Your task to perform on an android device: toggle improve location accuracy Image 0: 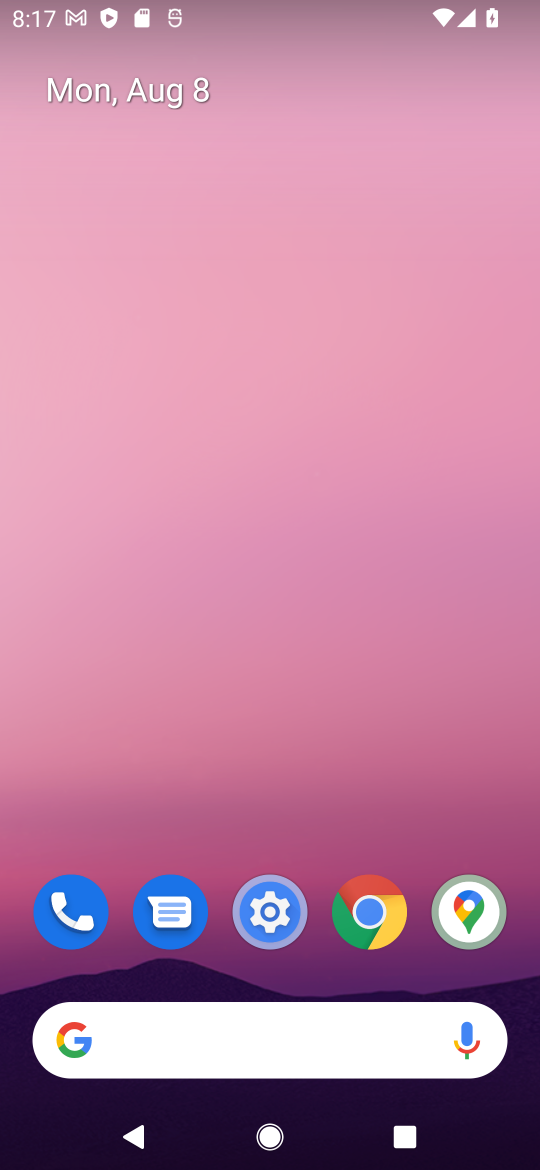
Step 0: drag from (430, 882) to (258, 160)
Your task to perform on an android device: toggle improve location accuracy Image 1: 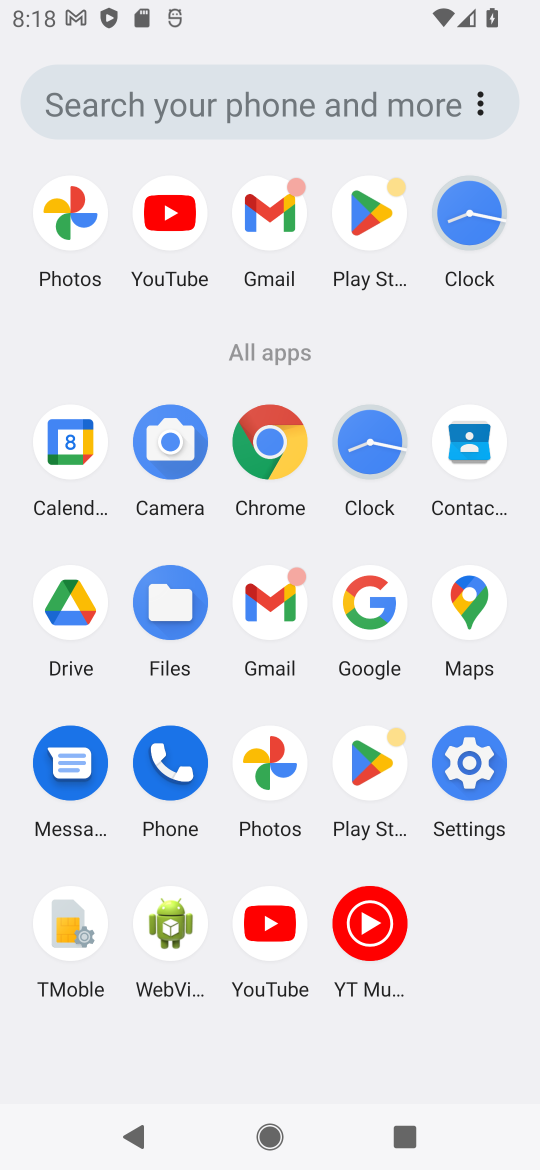
Step 1: click (465, 771)
Your task to perform on an android device: toggle improve location accuracy Image 2: 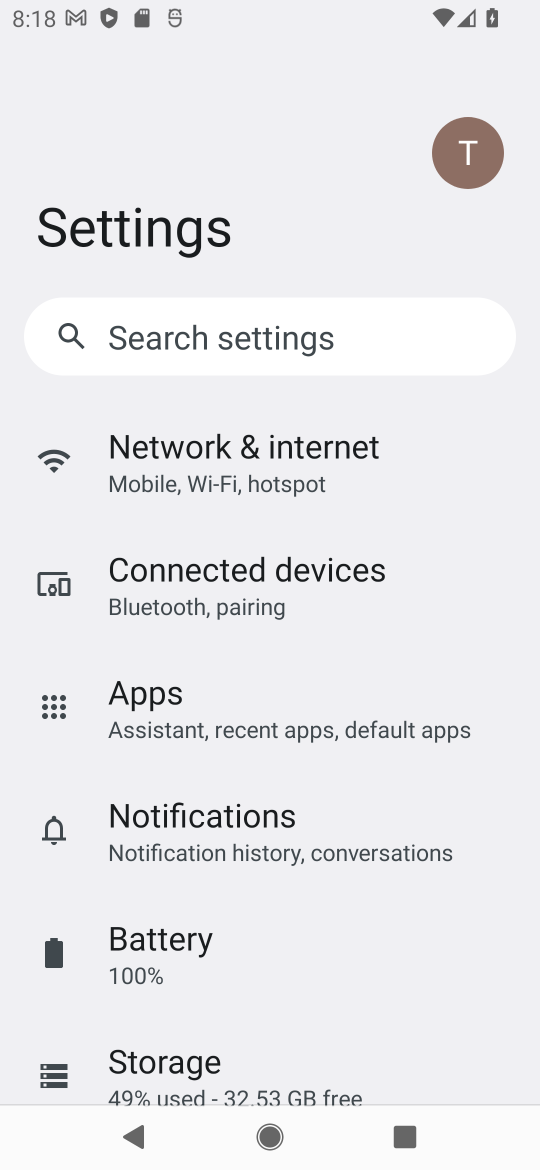
Step 2: drag from (223, 902) to (205, 314)
Your task to perform on an android device: toggle improve location accuracy Image 3: 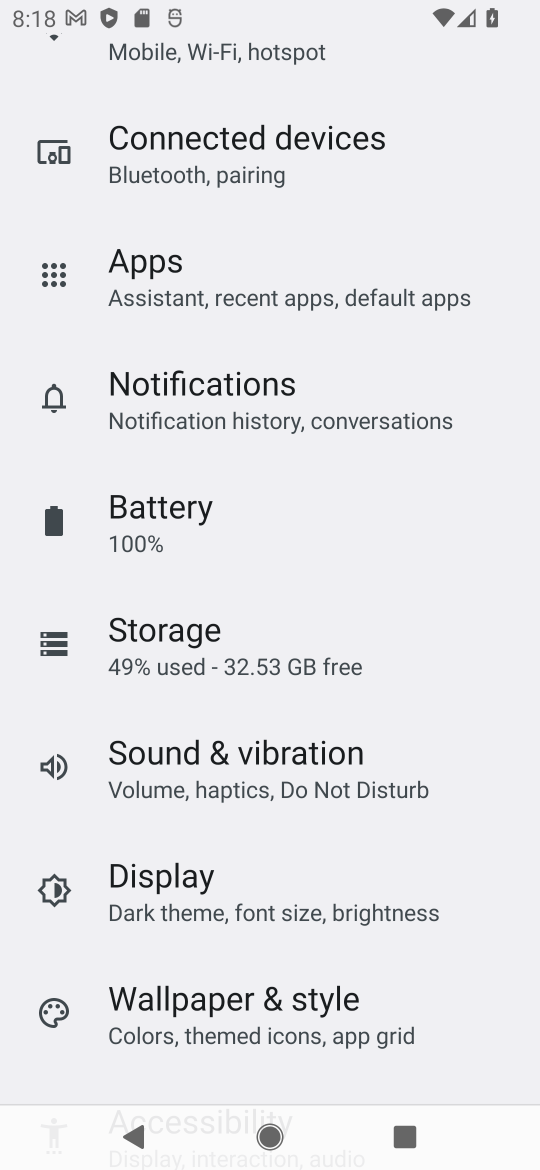
Step 3: drag from (250, 806) to (197, 181)
Your task to perform on an android device: toggle improve location accuracy Image 4: 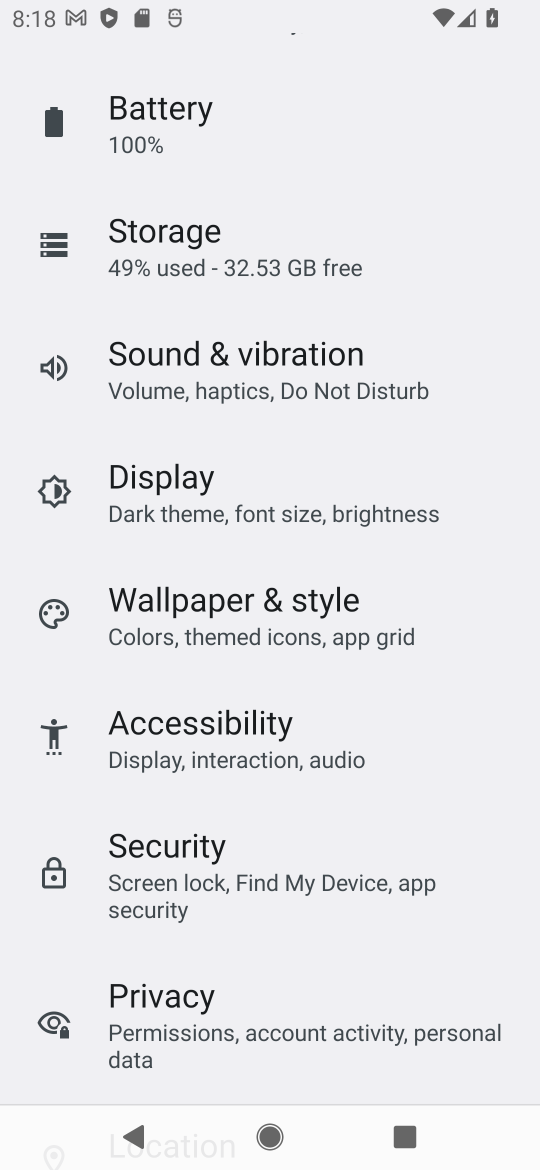
Step 4: drag from (83, 1035) to (203, 113)
Your task to perform on an android device: toggle improve location accuracy Image 5: 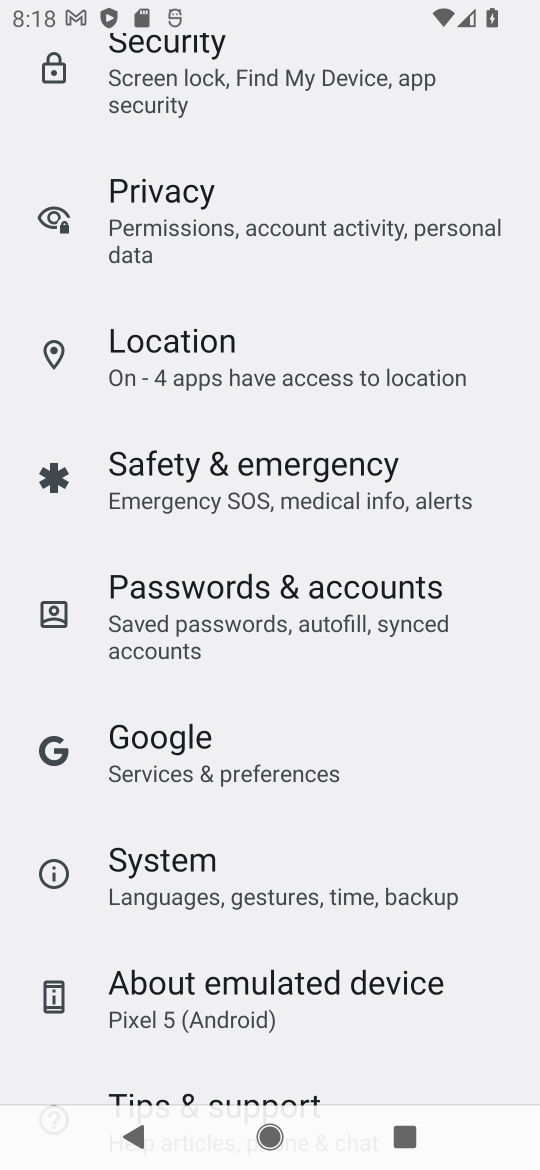
Step 5: drag from (178, 1037) to (224, 59)
Your task to perform on an android device: toggle improve location accuracy Image 6: 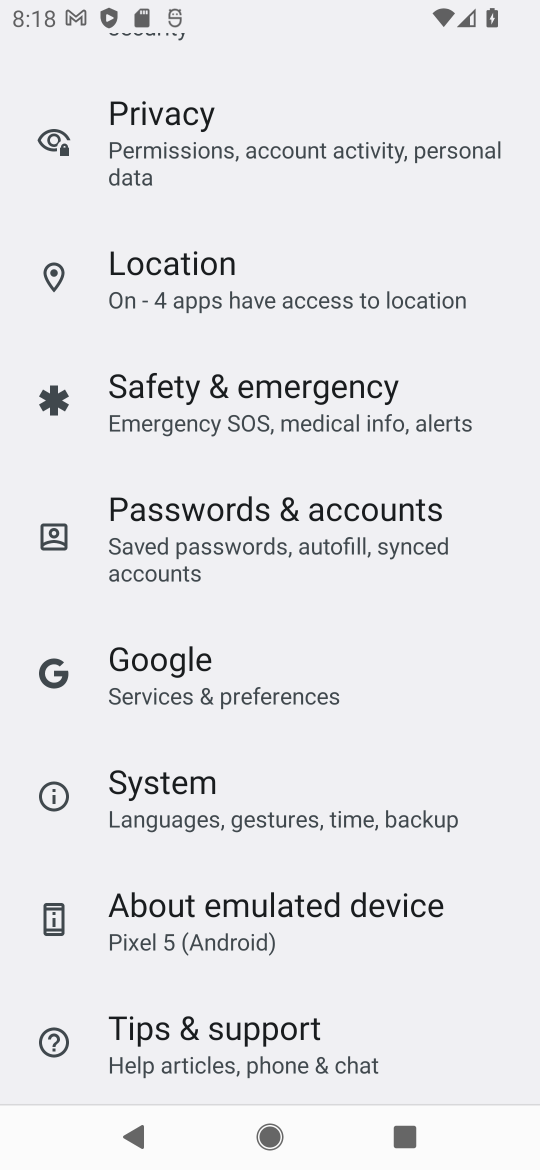
Step 6: click (170, 274)
Your task to perform on an android device: toggle improve location accuracy Image 7: 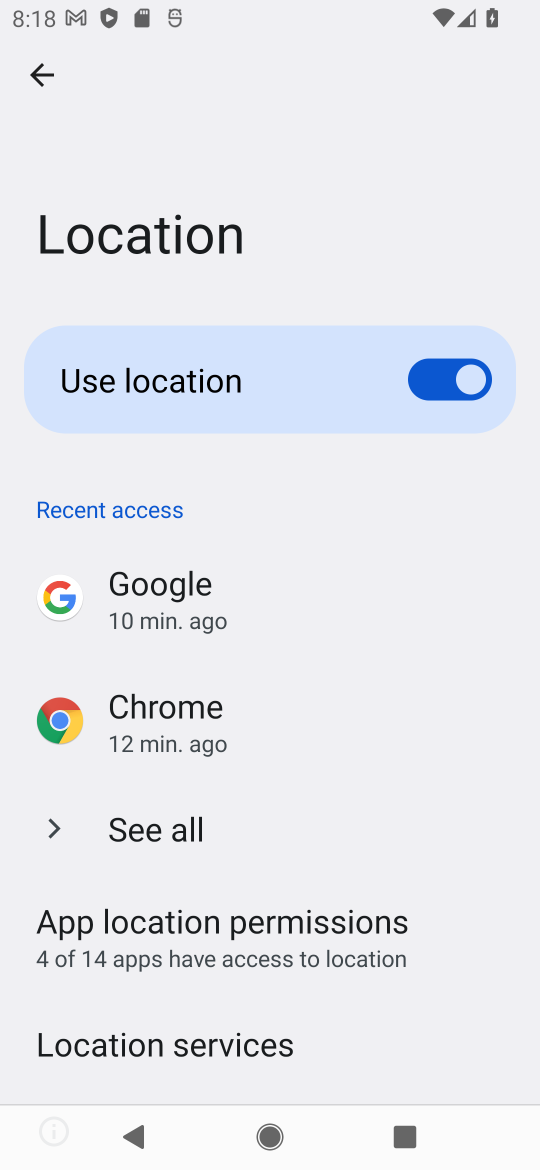
Step 7: drag from (270, 1030) to (344, 124)
Your task to perform on an android device: toggle improve location accuracy Image 8: 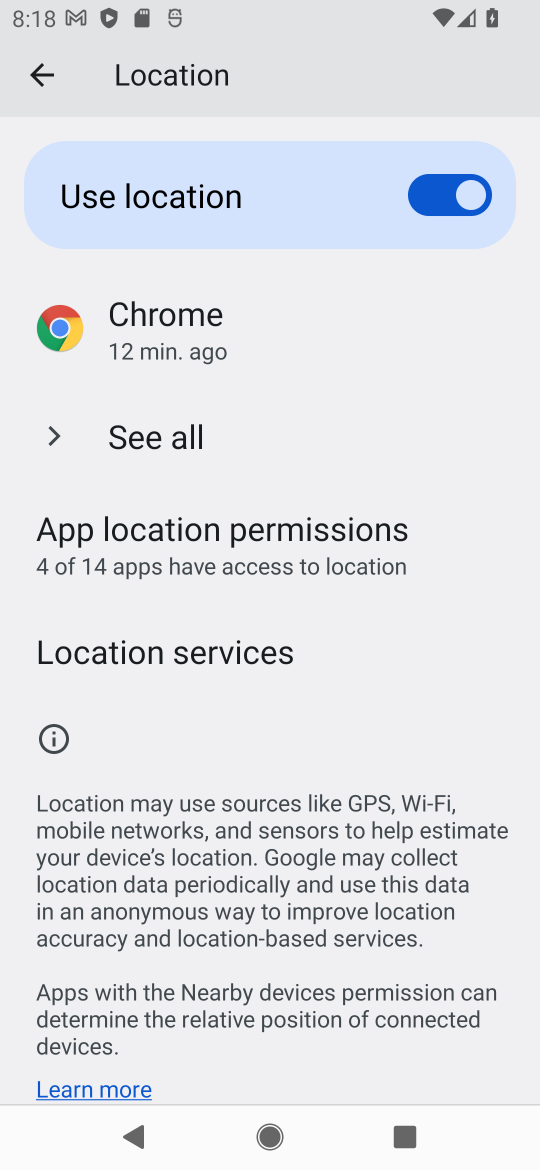
Step 8: click (145, 667)
Your task to perform on an android device: toggle improve location accuracy Image 9: 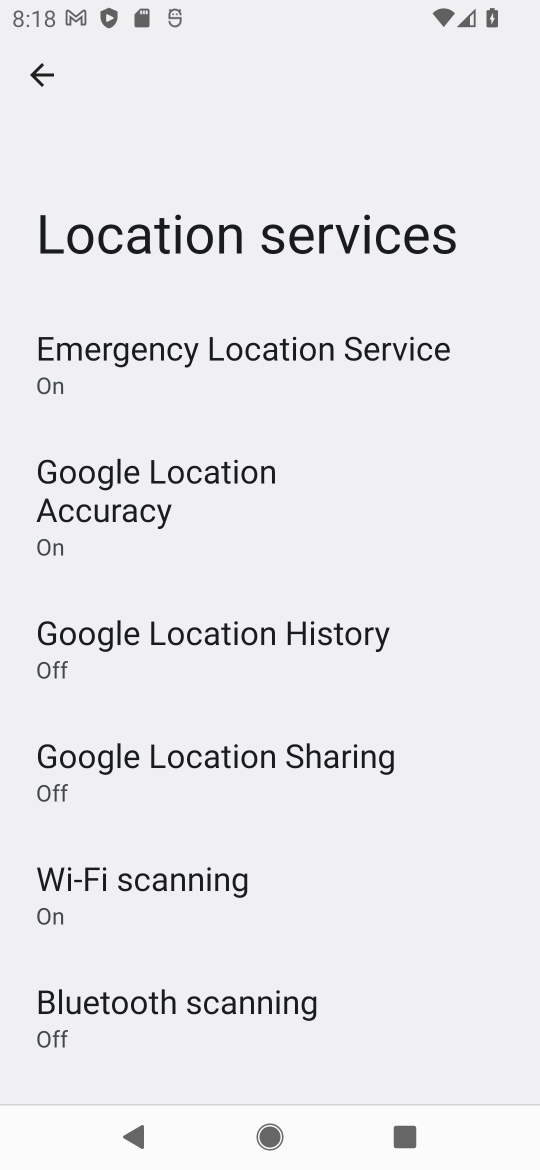
Step 9: click (213, 488)
Your task to perform on an android device: toggle improve location accuracy Image 10: 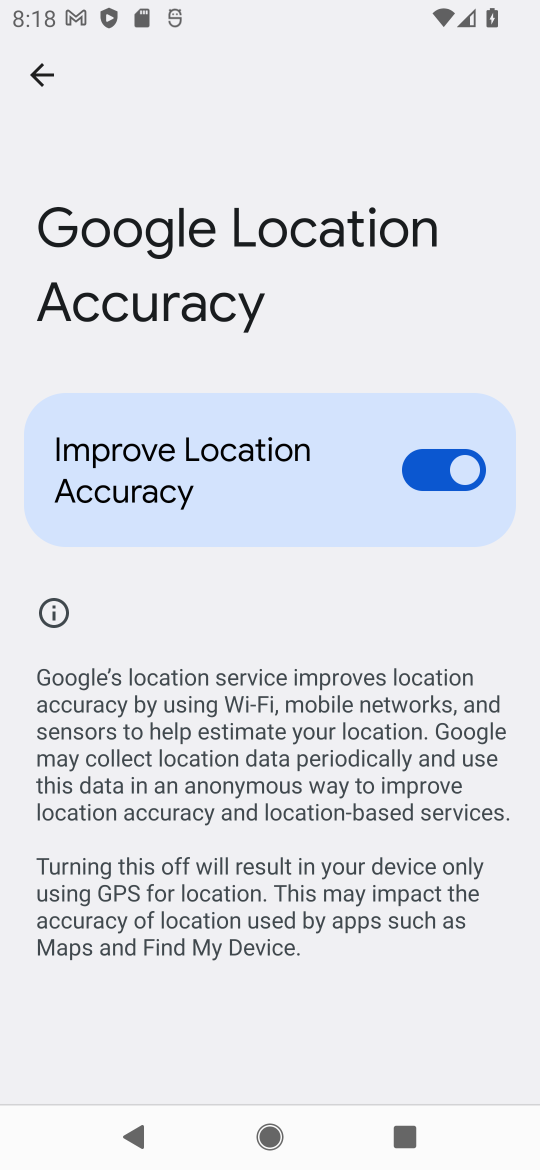
Step 10: click (428, 467)
Your task to perform on an android device: toggle improve location accuracy Image 11: 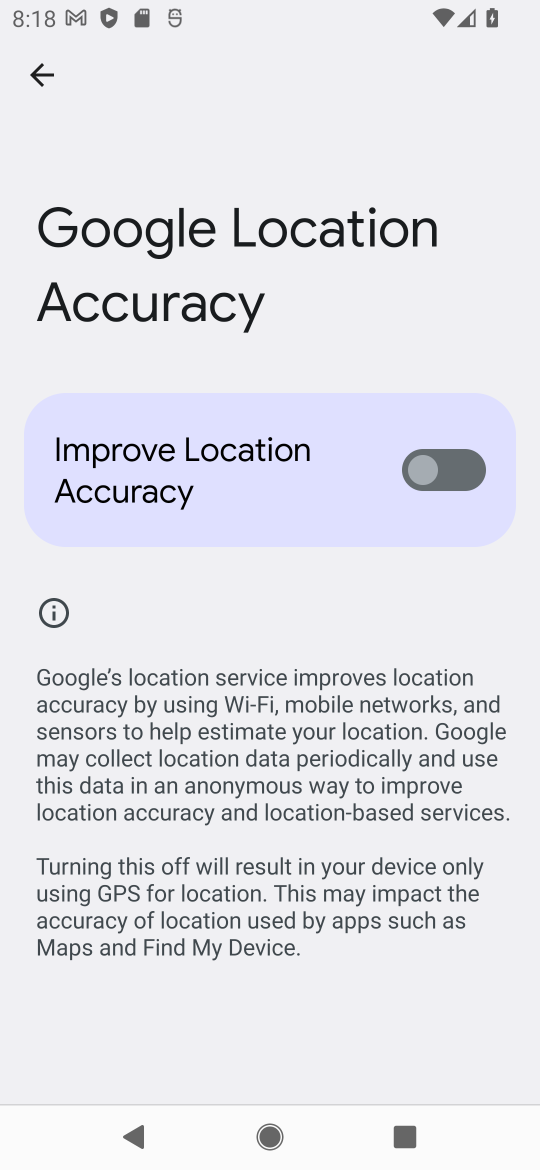
Step 11: task complete